Your task to perform on an android device: Go to Android settings Image 0: 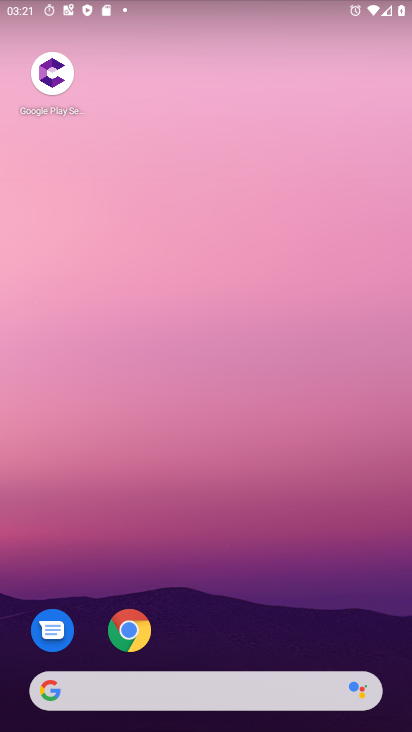
Step 0: drag from (196, 639) to (198, 76)
Your task to perform on an android device: Go to Android settings Image 1: 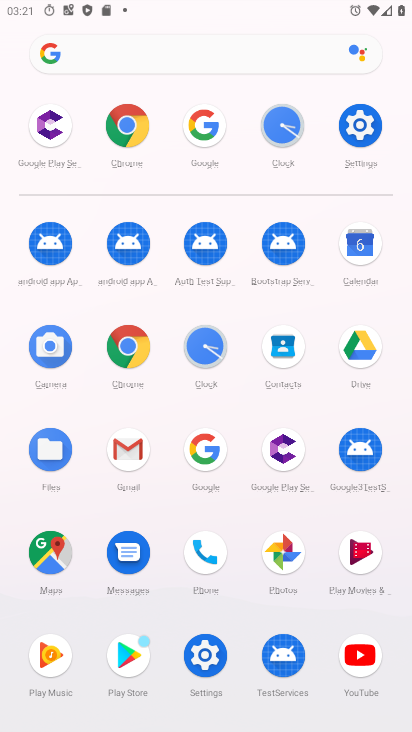
Step 1: click (348, 123)
Your task to perform on an android device: Go to Android settings Image 2: 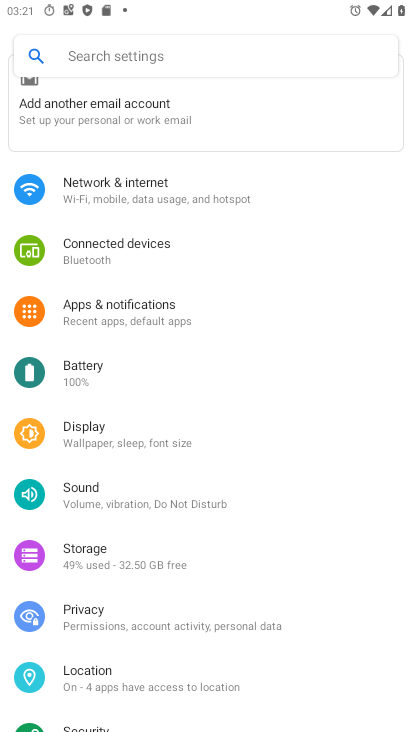
Step 2: task complete